Your task to perform on an android device: Open Google Chrome and open the bookmarks view Image 0: 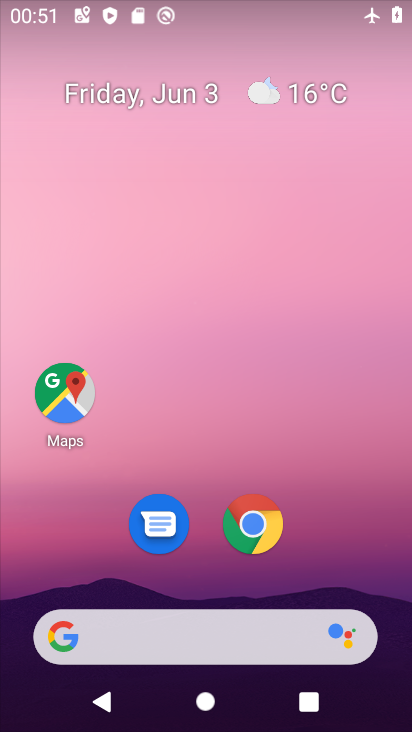
Step 0: click (256, 522)
Your task to perform on an android device: Open Google Chrome and open the bookmarks view Image 1: 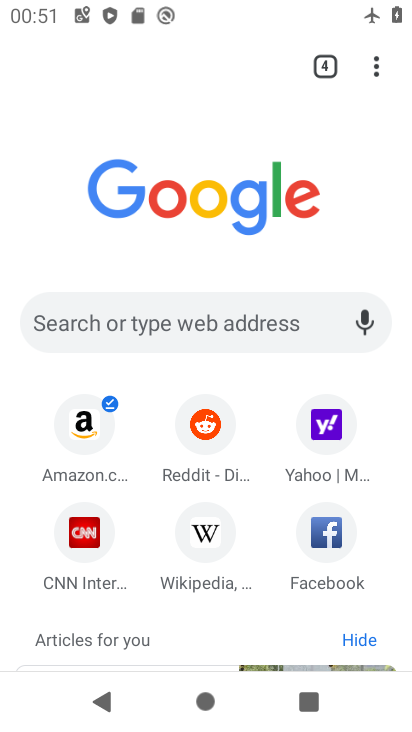
Step 1: click (372, 64)
Your task to perform on an android device: Open Google Chrome and open the bookmarks view Image 2: 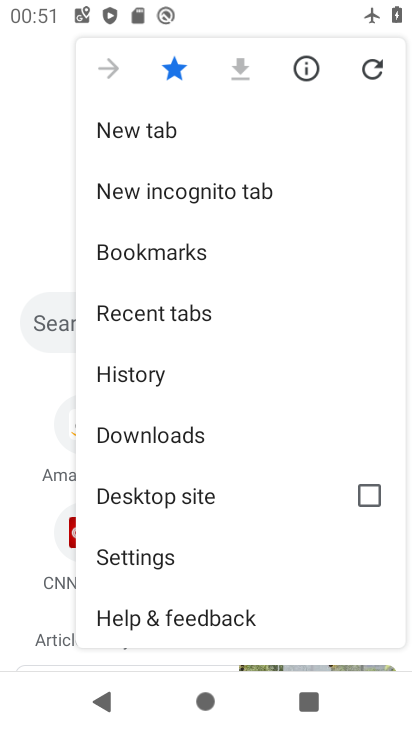
Step 2: click (203, 243)
Your task to perform on an android device: Open Google Chrome and open the bookmarks view Image 3: 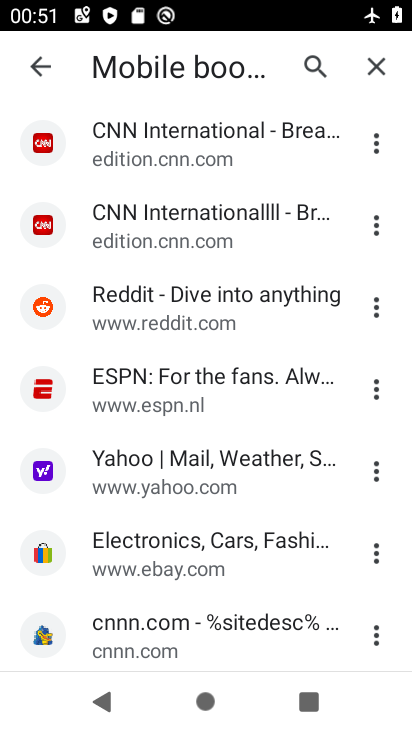
Step 3: task complete